Your task to perform on an android device: Open the phone app and click the voicemail tab. Image 0: 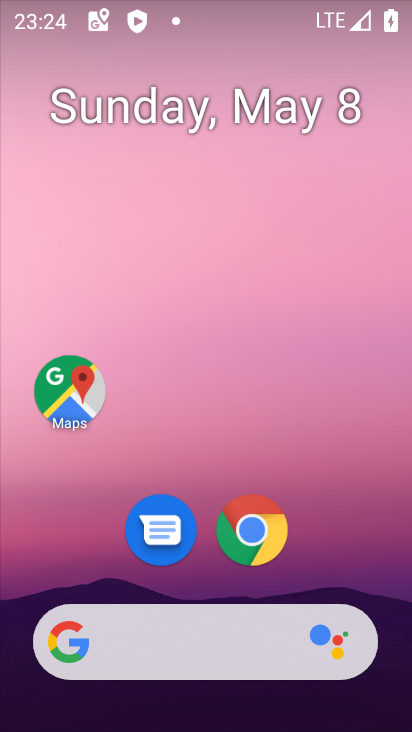
Step 0: drag from (333, 555) to (332, 102)
Your task to perform on an android device: Open the phone app and click the voicemail tab. Image 1: 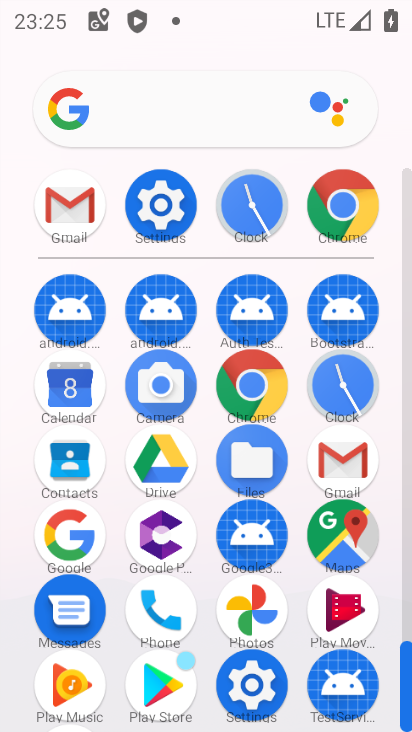
Step 1: click (147, 613)
Your task to perform on an android device: Open the phone app and click the voicemail tab. Image 2: 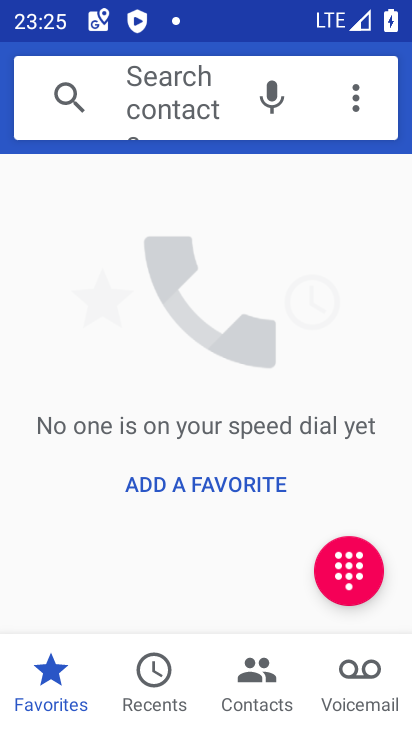
Step 2: click (371, 694)
Your task to perform on an android device: Open the phone app and click the voicemail tab. Image 3: 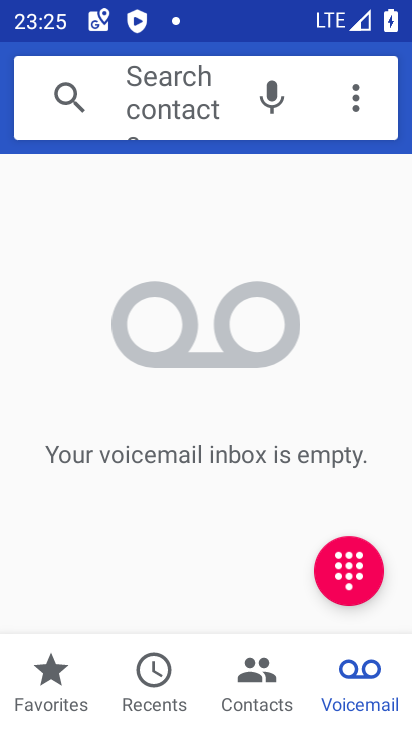
Step 3: task complete